Your task to perform on an android device: Open wifi settings Image 0: 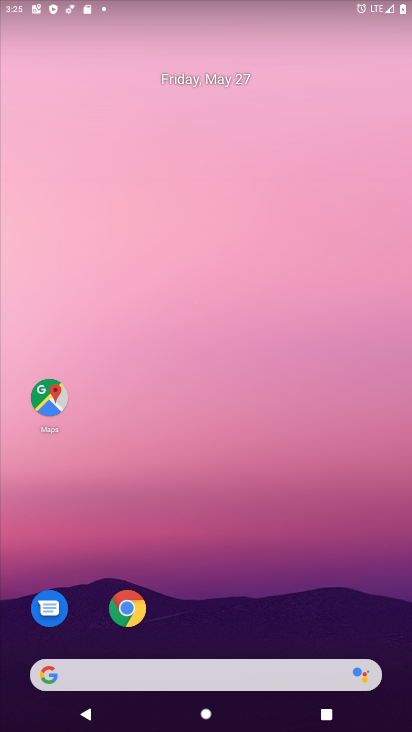
Step 0: drag from (198, 594) to (198, 295)
Your task to perform on an android device: Open wifi settings Image 1: 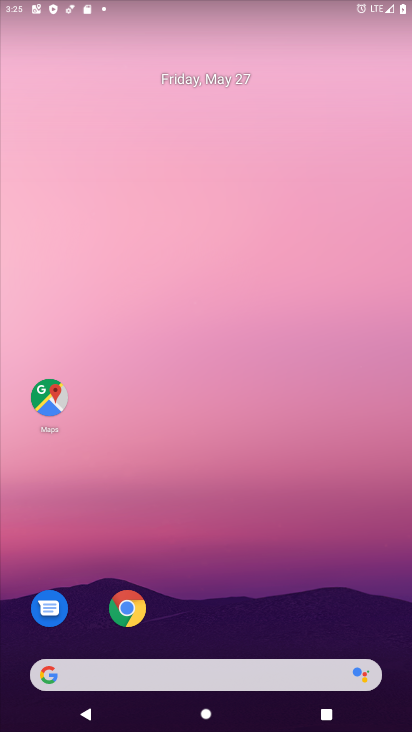
Step 1: drag from (248, 662) to (248, 172)
Your task to perform on an android device: Open wifi settings Image 2: 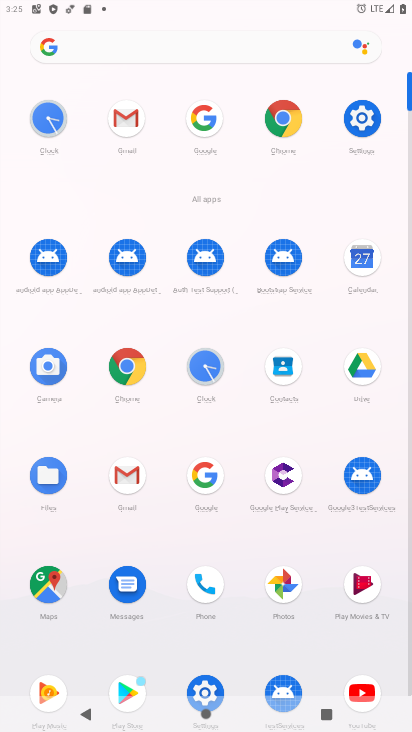
Step 2: click (371, 122)
Your task to perform on an android device: Open wifi settings Image 3: 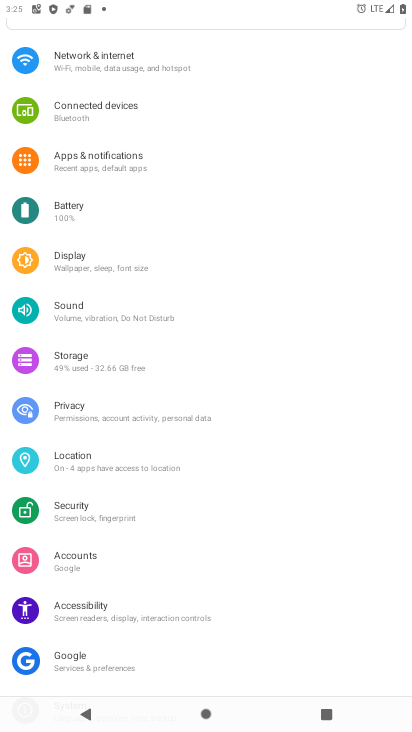
Step 3: click (111, 56)
Your task to perform on an android device: Open wifi settings Image 4: 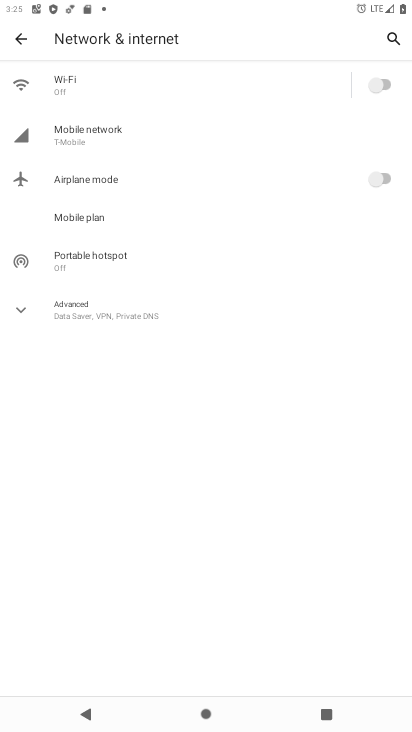
Step 4: click (105, 86)
Your task to perform on an android device: Open wifi settings Image 5: 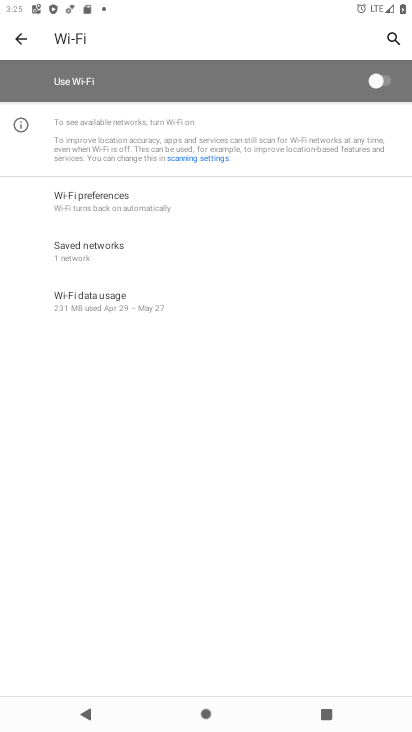
Step 5: click (388, 76)
Your task to perform on an android device: Open wifi settings Image 6: 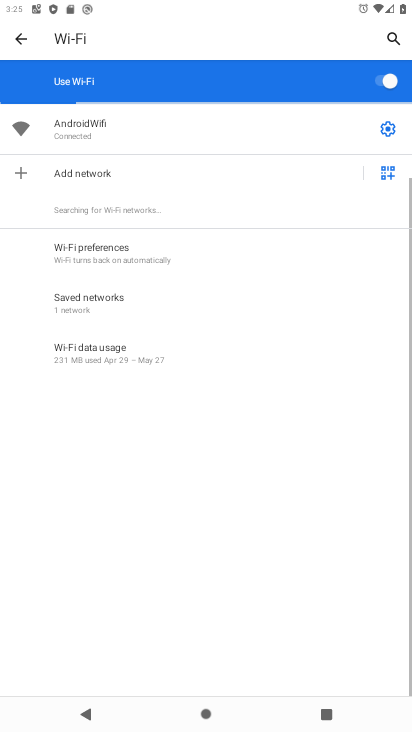
Step 6: click (384, 128)
Your task to perform on an android device: Open wifi settings Image 7: 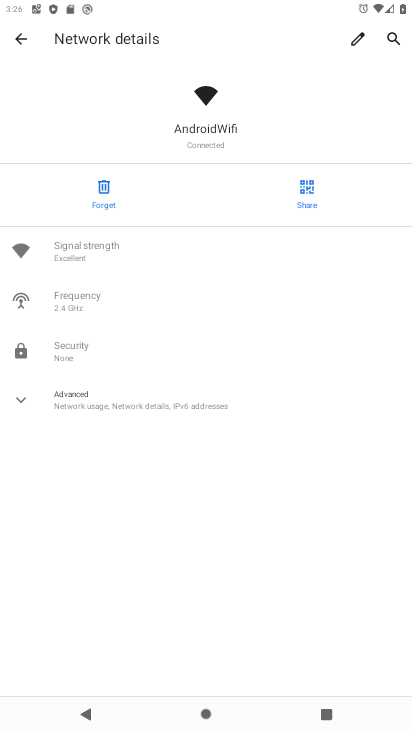
Step 7: click (178, 404)
Your task to perform on an android device: Open wifi settings Image 8: 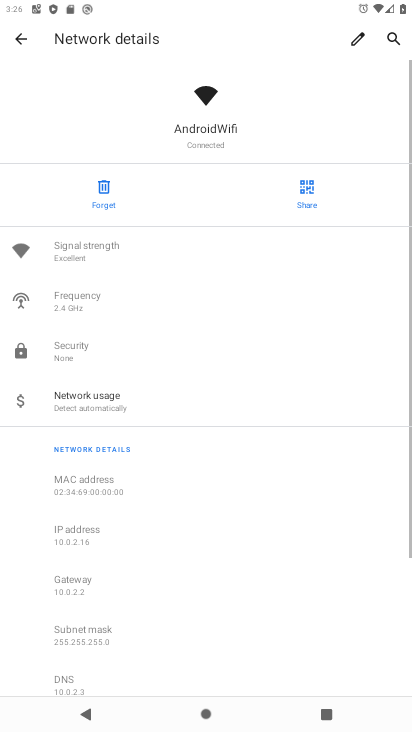
Step 8: task complete